Your task to perform on an android device: delete a single message in the gmail app Image 0: 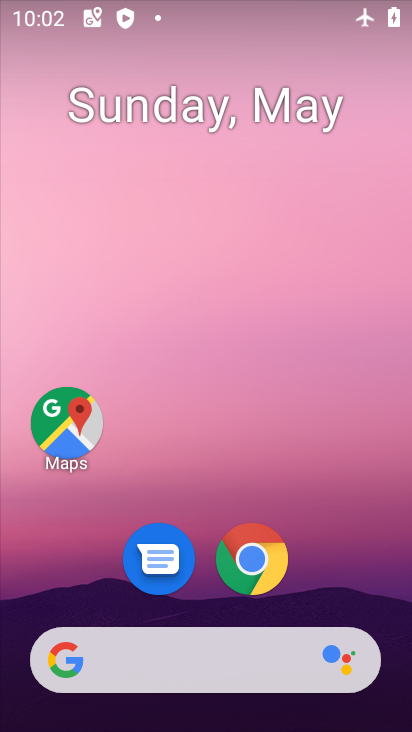
Step 0: drag from (189, 632) to (320, 92)
Your task to perform on an android device: delete a single message in the gmail app Image 1: 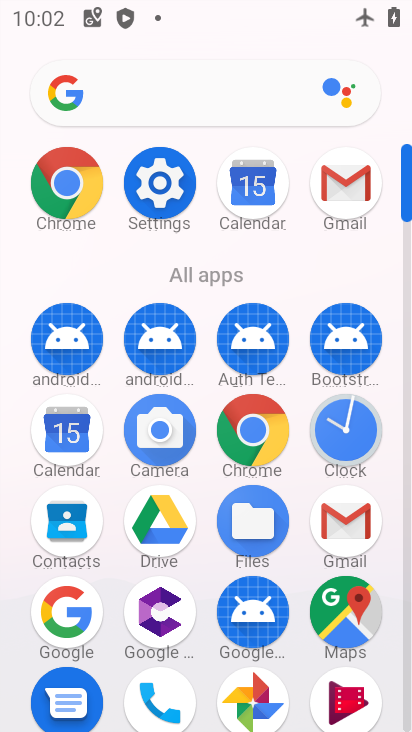
Step 1: click (351, 519)
Your task to perform on an android device: delete a single message in the gmail app Image 2: 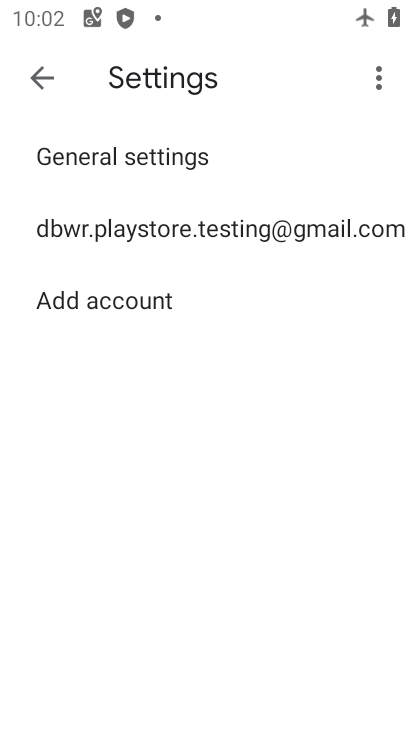
Step 2: click (56, 65)
Your task to perform on an android device: delete a single message in the gmail app Image 3: 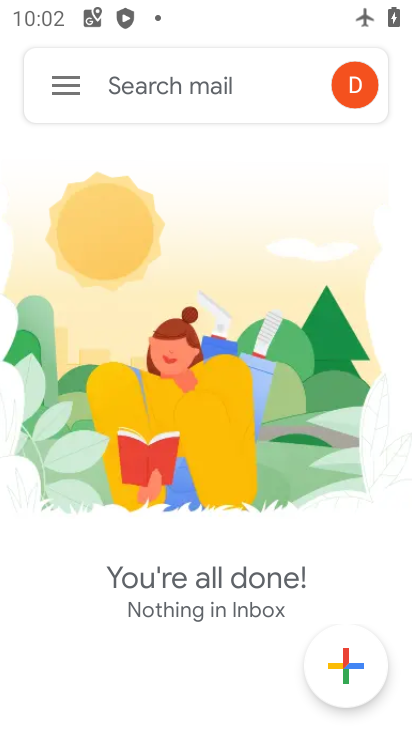
Step 3: click (62, 85)
Your task to perform on an android device: delete a single message in the gmail app Image 4: 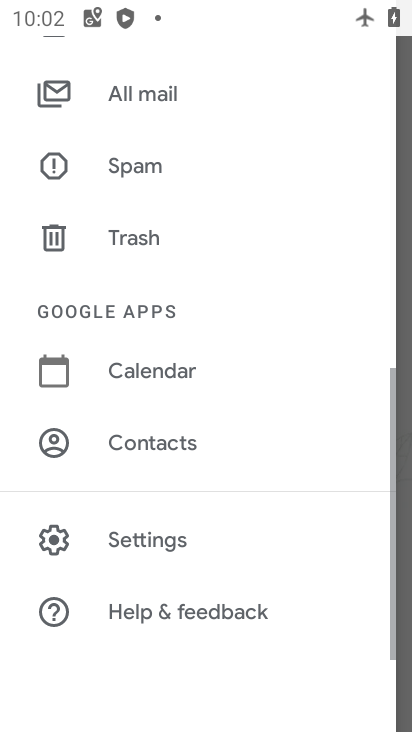
Step 4: click (142, 103)
Your task to perform on an android device: delete a single message in the gmail app Image 5: 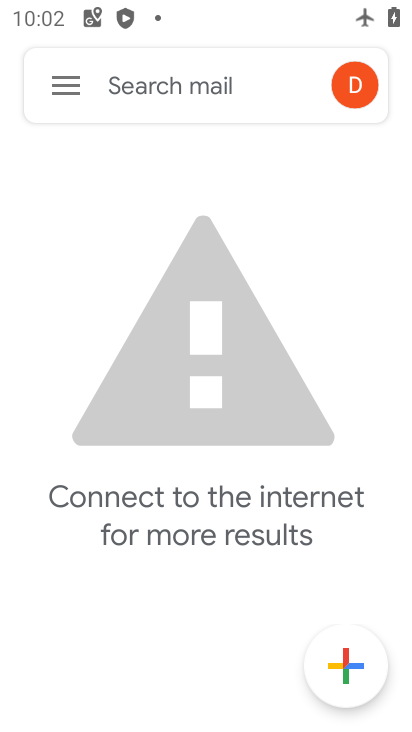
Step 5: task complete